Your task to perform on an android device: turn on bluetooth scan Image 0: 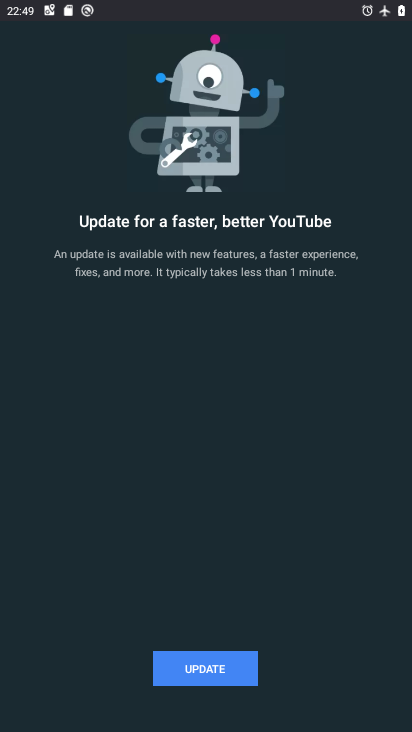
Step 0: press home button
Your task to perform on an android device: turn on bluetooth scan Image 1: 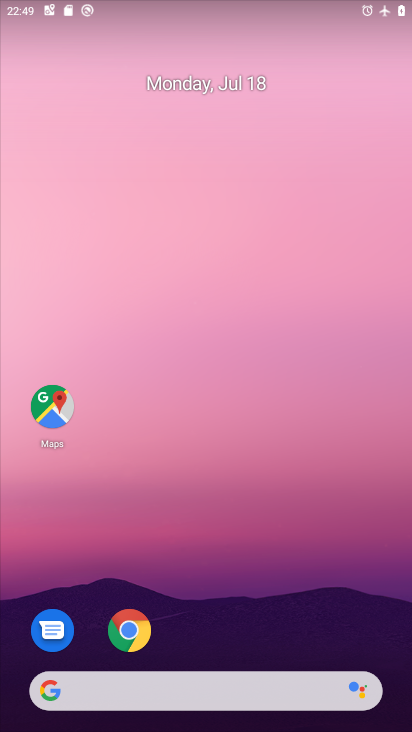
Step 1: drag from (200, 623) to (164, 165)
Your task to perform on an android device: turn on bluetooth scan Image 2: 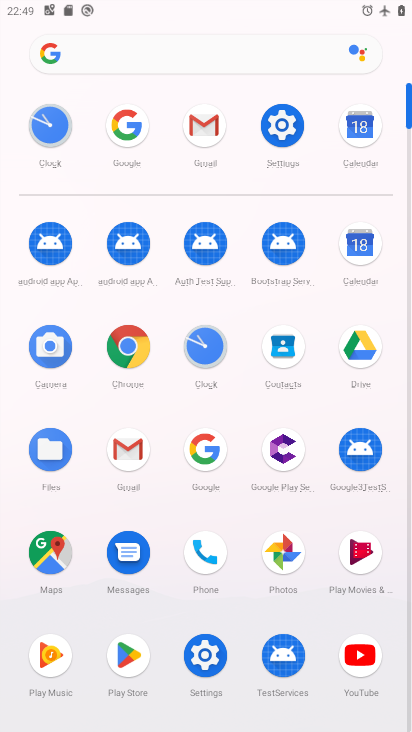
Step 2: click (274, 147)
Your task to perform on an android device: turn on bluetooth scan Image 3: 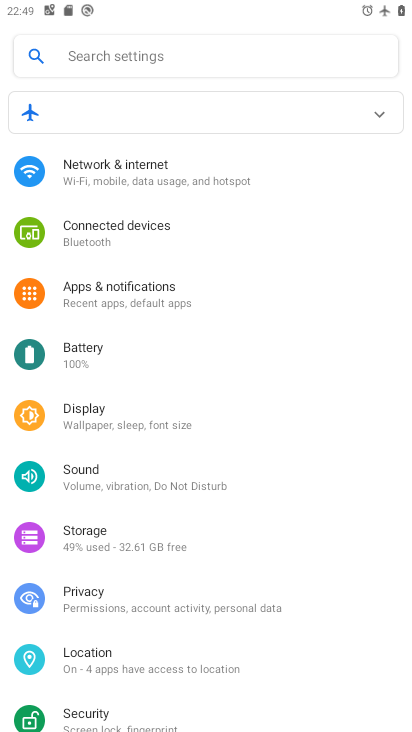
Step 3: click (162, 666)
Your task to perform on an android device: turn on bluetooth scan Image 4: 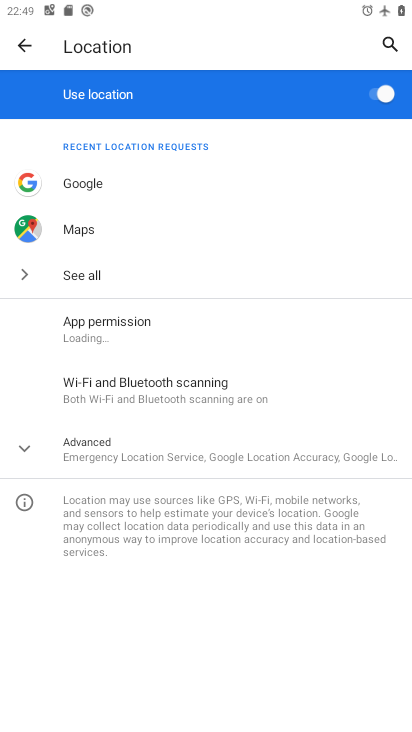
Step 4: click (150, 387)
Your task to perform on an android device: turn on bluetooth scan Image 5: 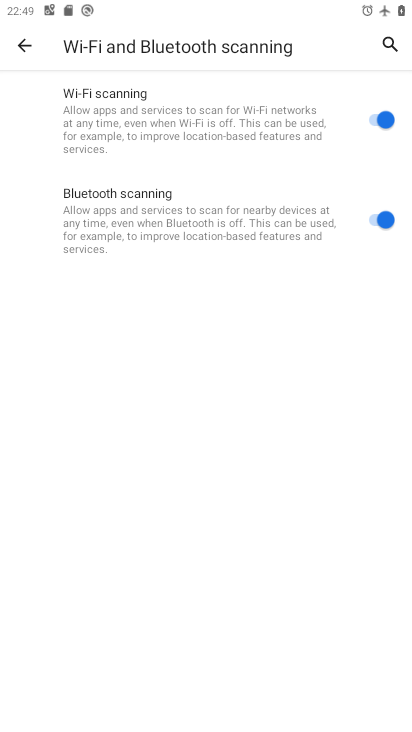
Step 5: task complete